Your task to perform on an android device: Go to sound settings Image 0: 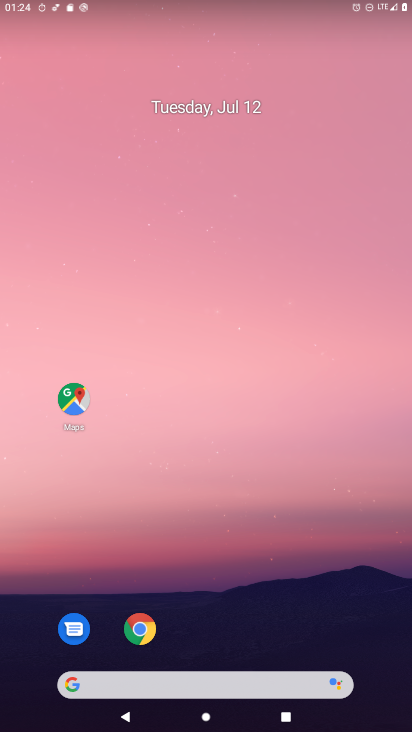
Step 0: drag from (31, 718) to (153, 127)
Your task to perform on an android device: Go to sound settings Image 1: 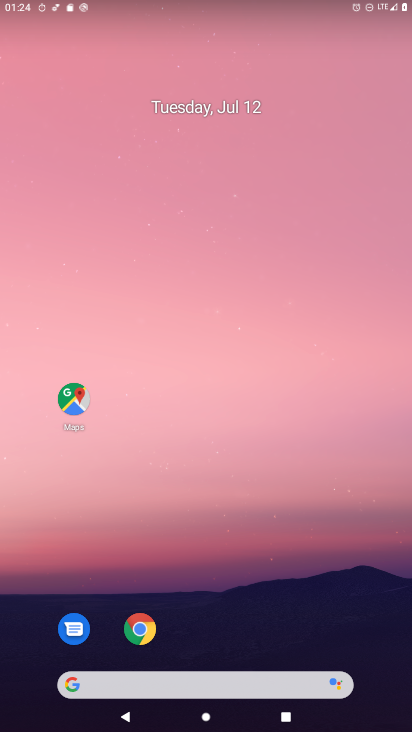
Step 1: drag from (69, 726) to (155, 18)
Your task to perform on an android device: Go to sound settings Image 2: 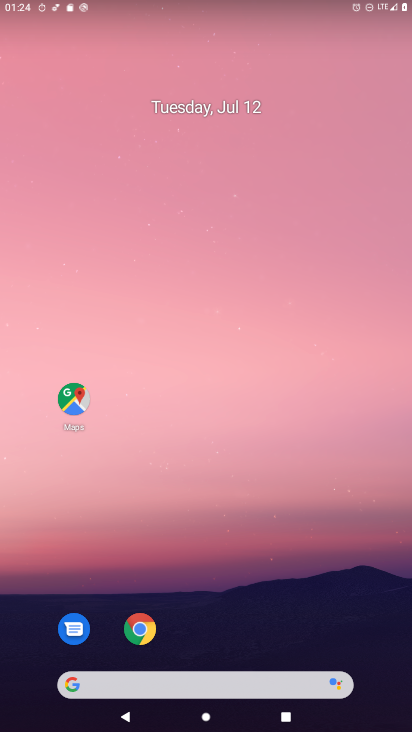
Step 2: drag from (48, 703) to (155, 194)
Your task to perform on an android device: Go to sound settings Image 3: 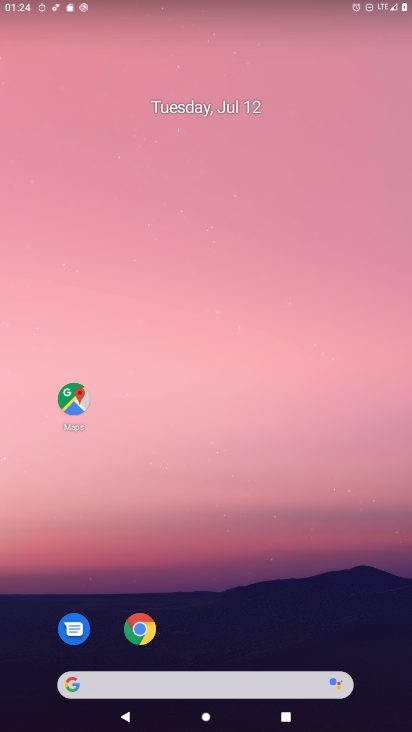
Step 3: drag from (21, 712) to (161, 7)
Your task to perform on an android device: Go to sound settings Image 4: 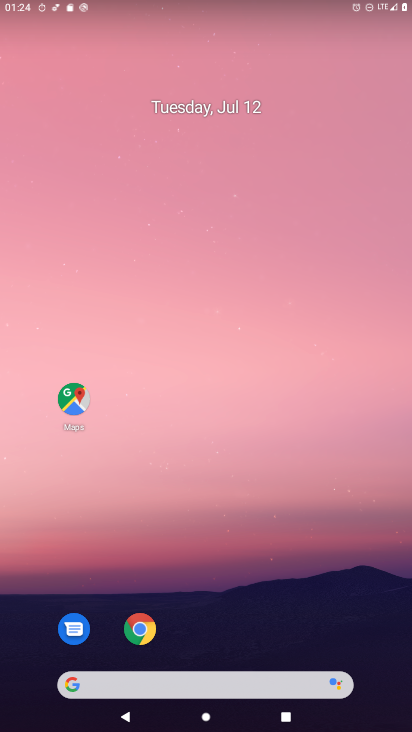
Step 4: drag from (41, 714) to (163, 196)
Your task to perform on an android device: Go to sound settings Image 5: 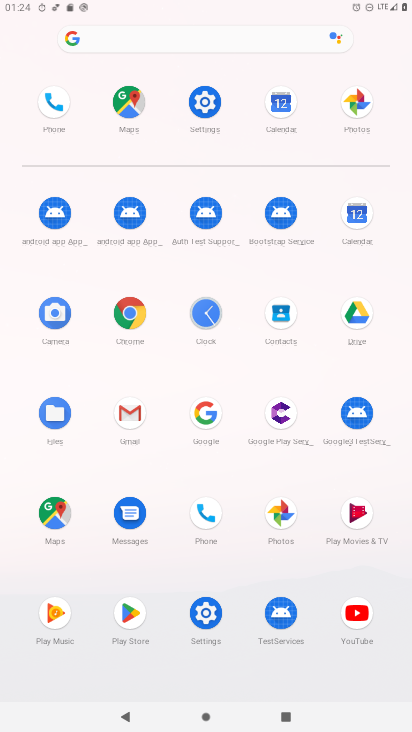
Step 5: click (211, 617)
Your task to perform on an android device: Go to sound settings Image 6: 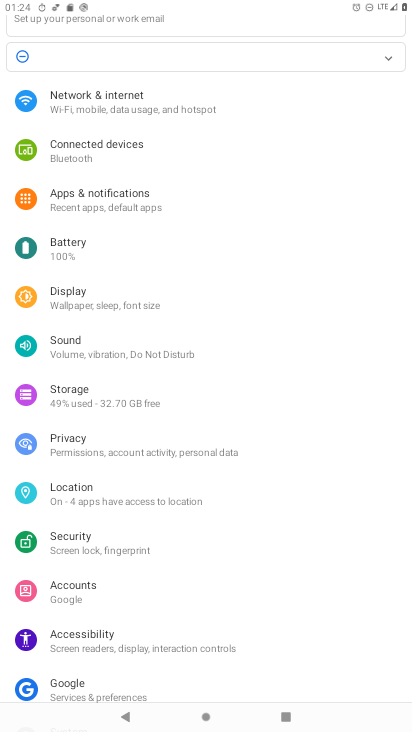
Step 6: click (63, 345)
Your task to perform on an android device: Go to sound settings Image 7: 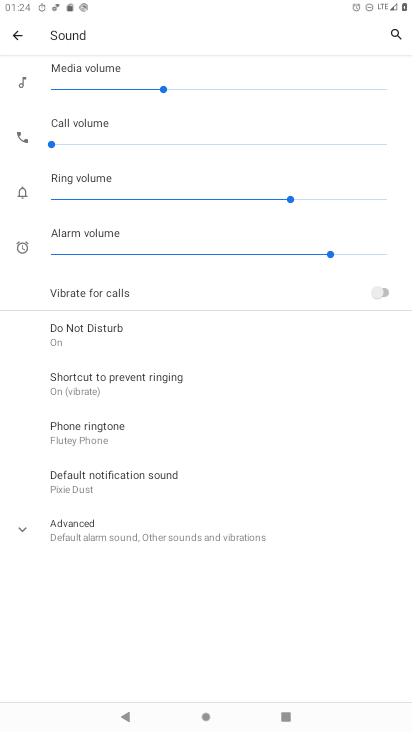
Step 7: task complete